Your task to perform on an android device: open app "Spotify: Music and Podcasts" (install if not already installed) and go to login screen Image 0: 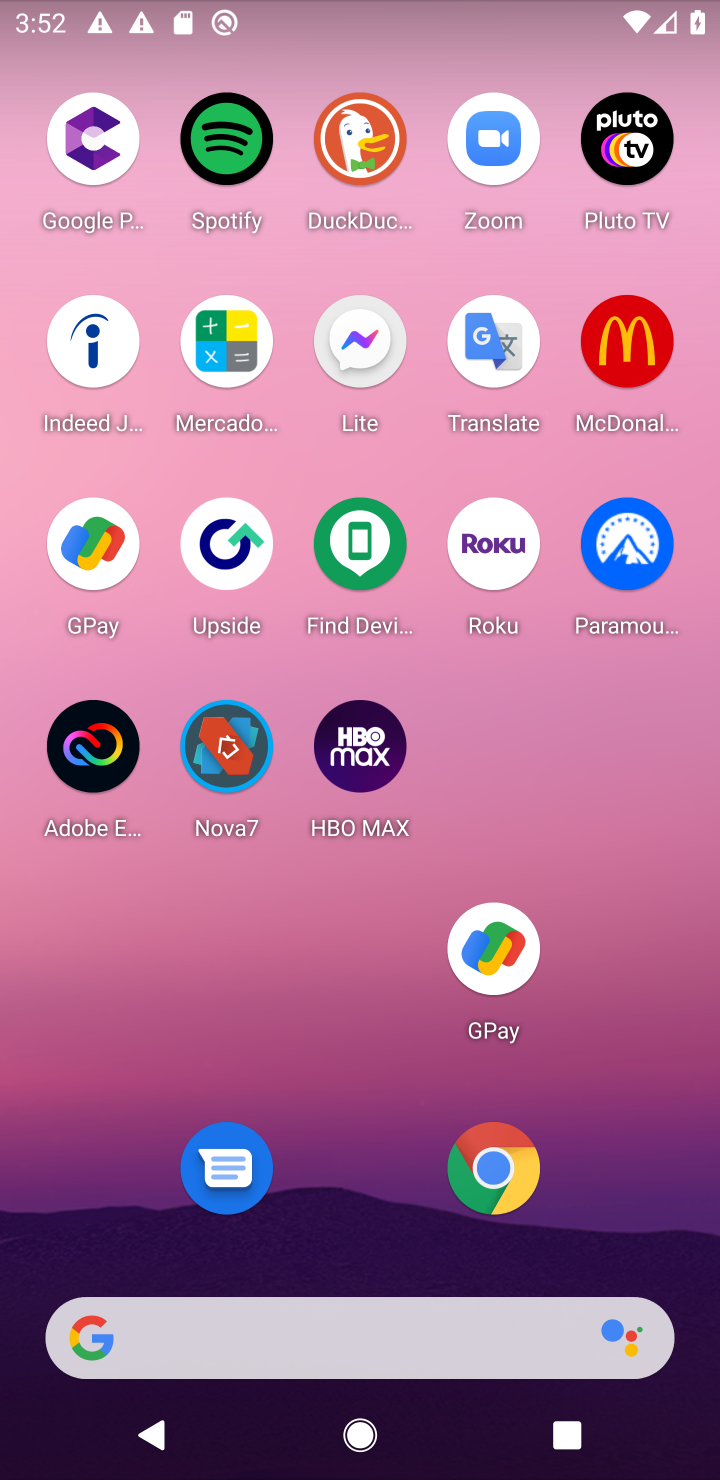
Step 0: press home button
Your task to perform on an android device: open app "Spotify: Music and Podcasts" (install if not already installed) and go to login screen Image 1: 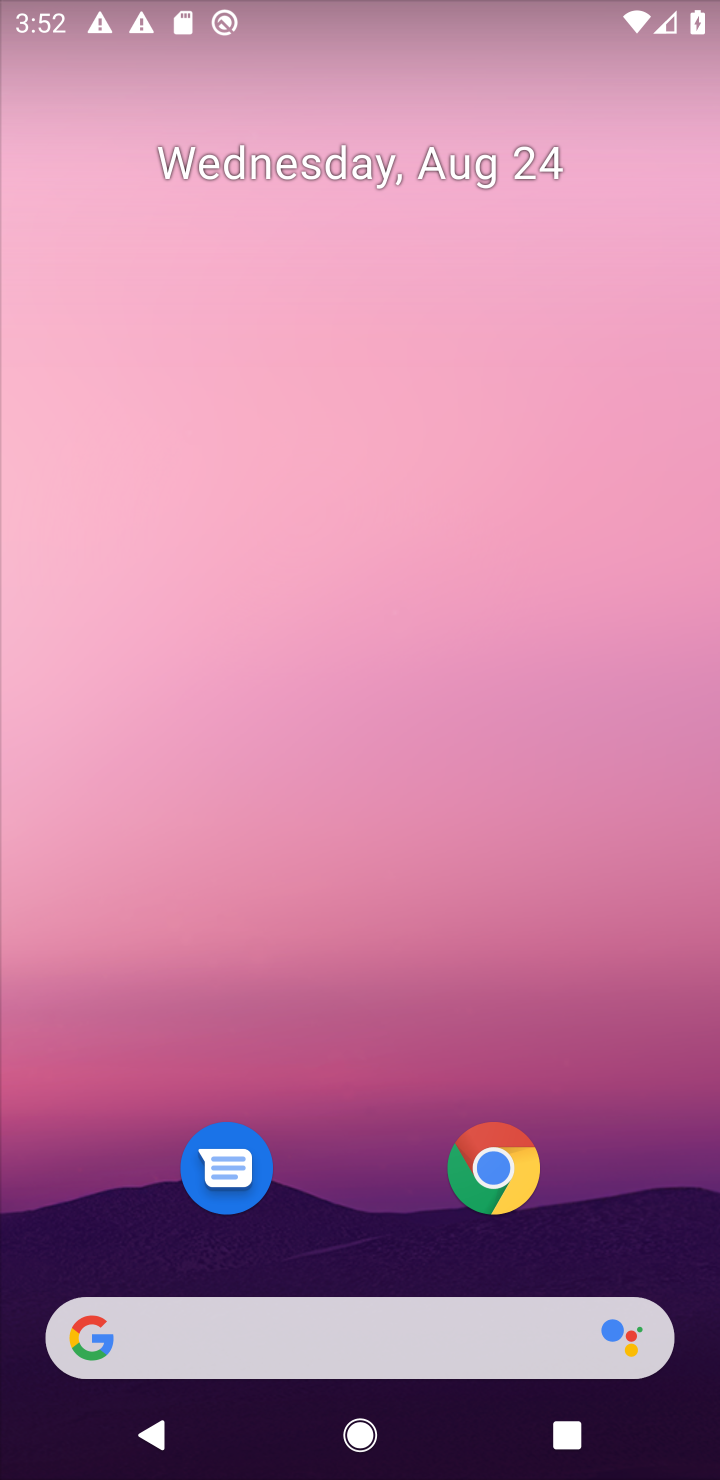
Step 1: drag from (691, 1277) to (567, 22)
Your task to perform on an android device: open app "Spotify: Music and Podcasts" (install if not already installed) and go to login screen Image 2: 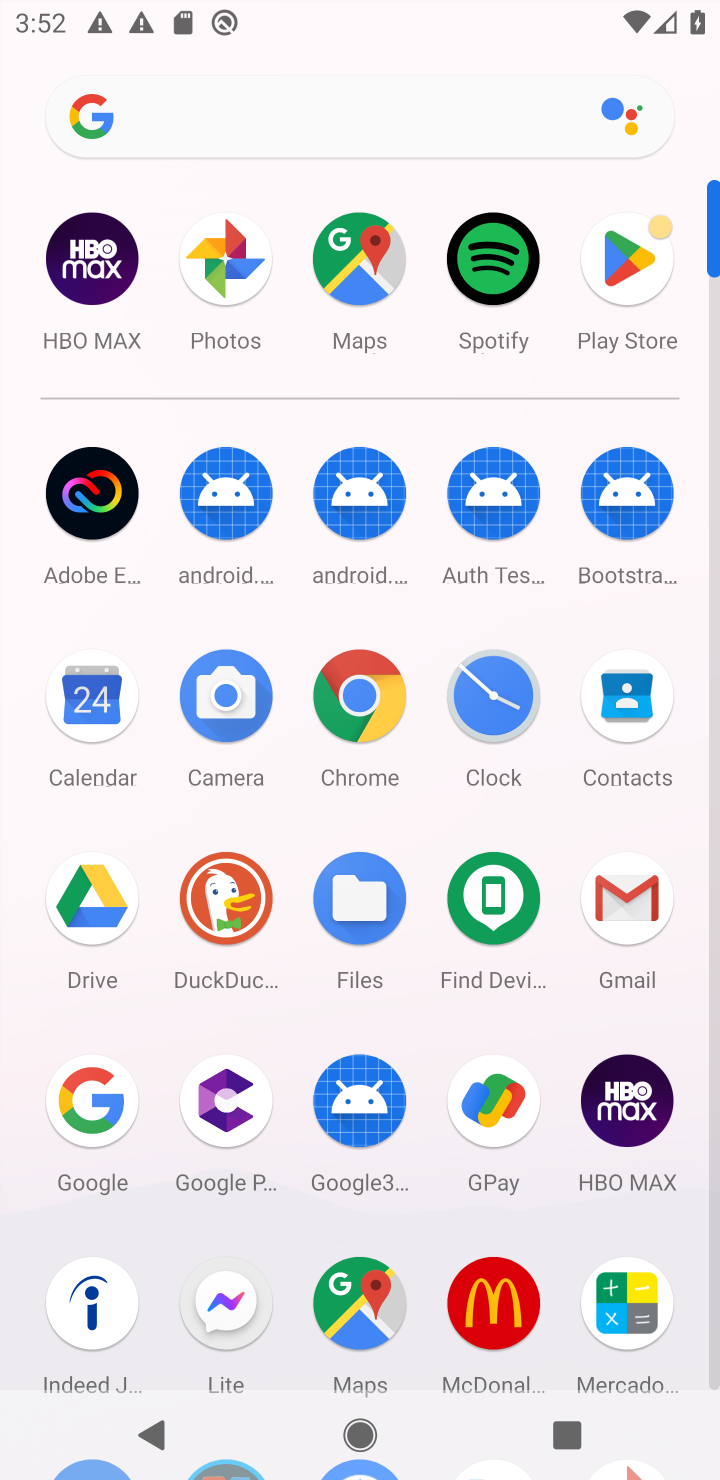
Step 2: click (712, 1315)
Your task to perform on an android device: open app "Spotify: Music and Podcasts" (install if not already installed) and go to login screen Image 3: 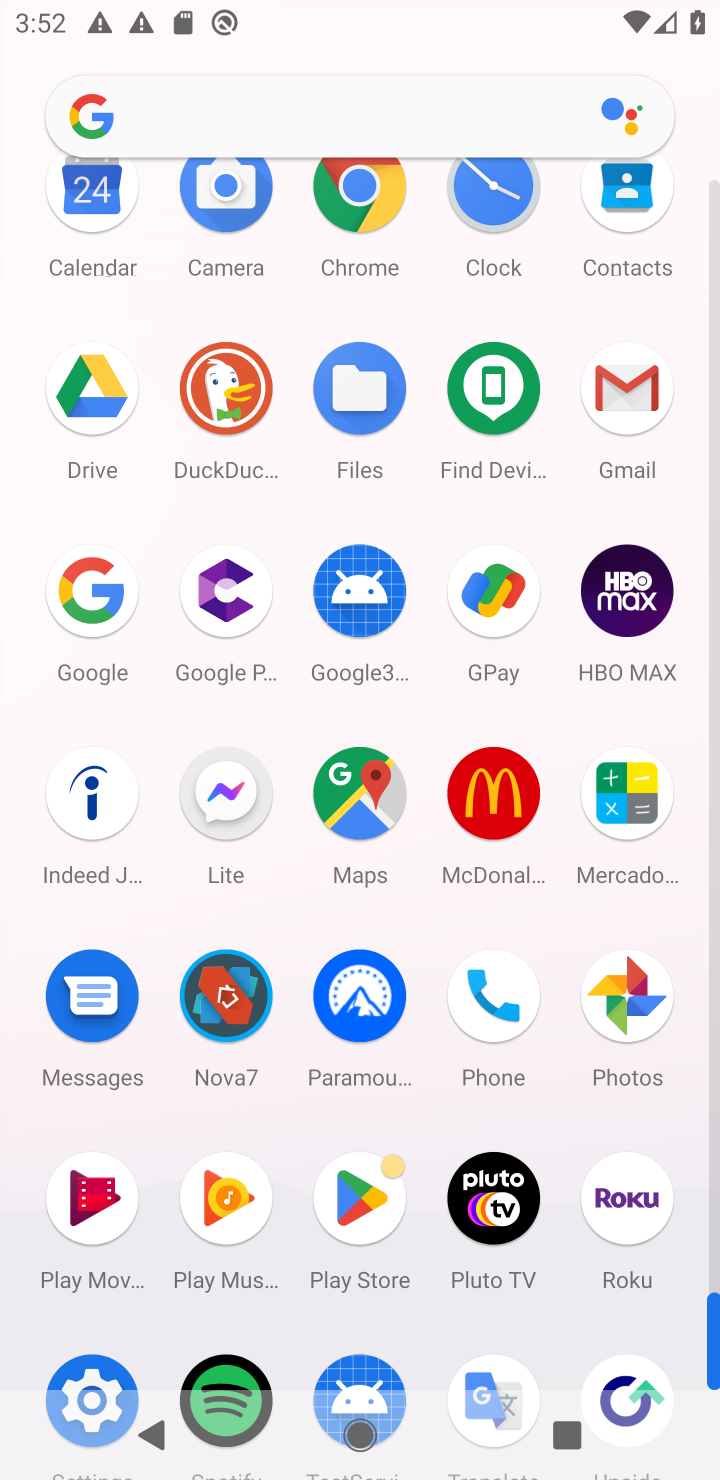
Step 3: click (371, 1198)
Your task to perform on an android device: open app "Spotify: Music and Podcasts" (install if not already installed) and go to login screen Image 4: 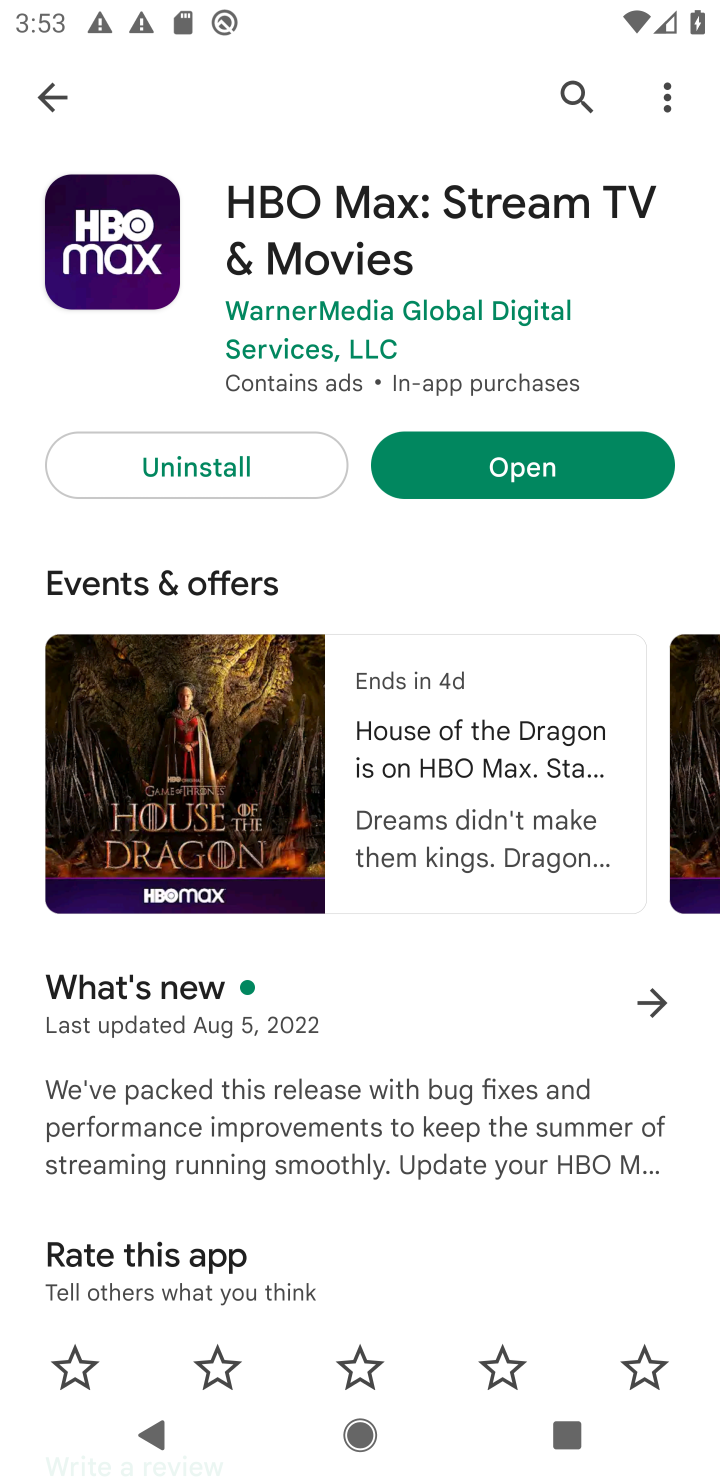
Step 4: click (570, 82)
Your task to perform on an android device: open app "Spotify: Music and Podcasts" (install if not already installed) and go to login screen Image 5: 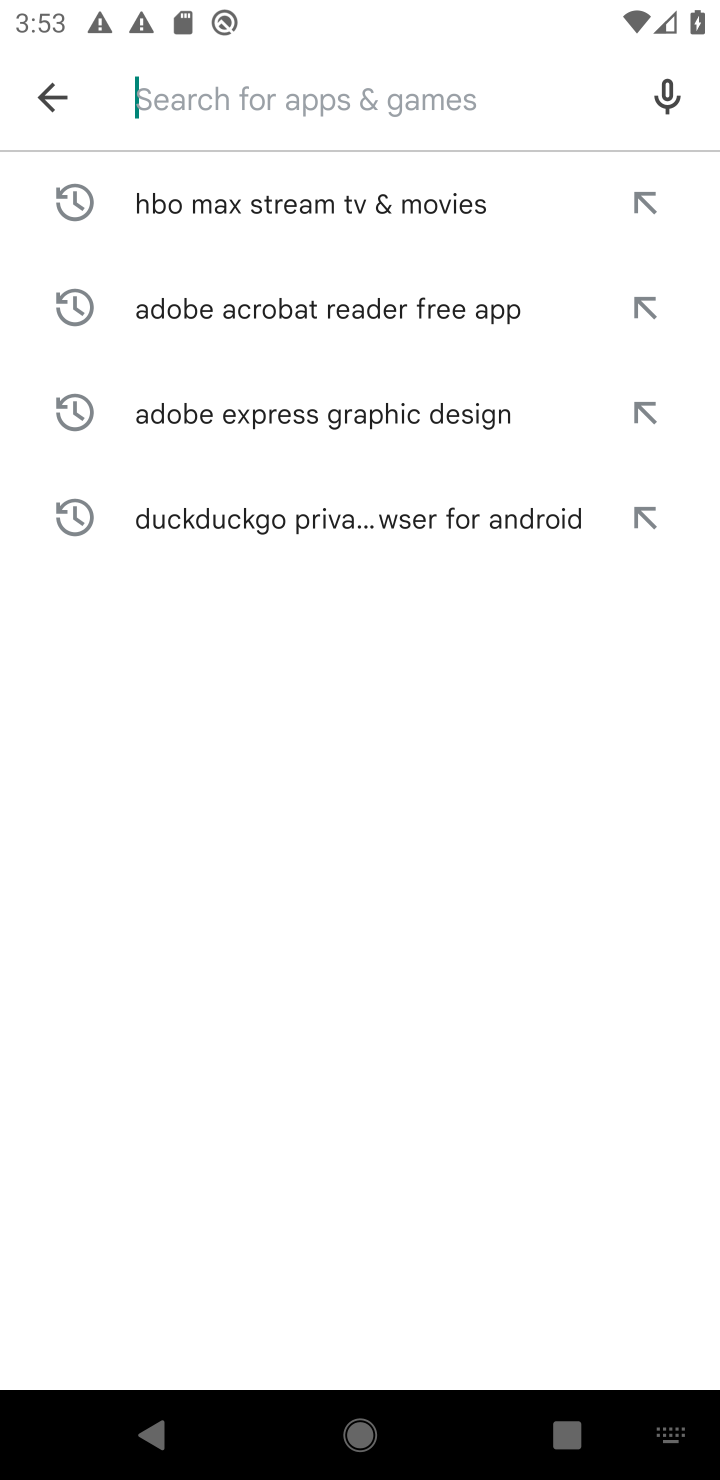
Step 5: type "Spotify: Music and Podcasts"
Your task to perform on an android device: open app "Spotify: Music and Podcasts" (install if not already installed) and go to login screen Image 6: 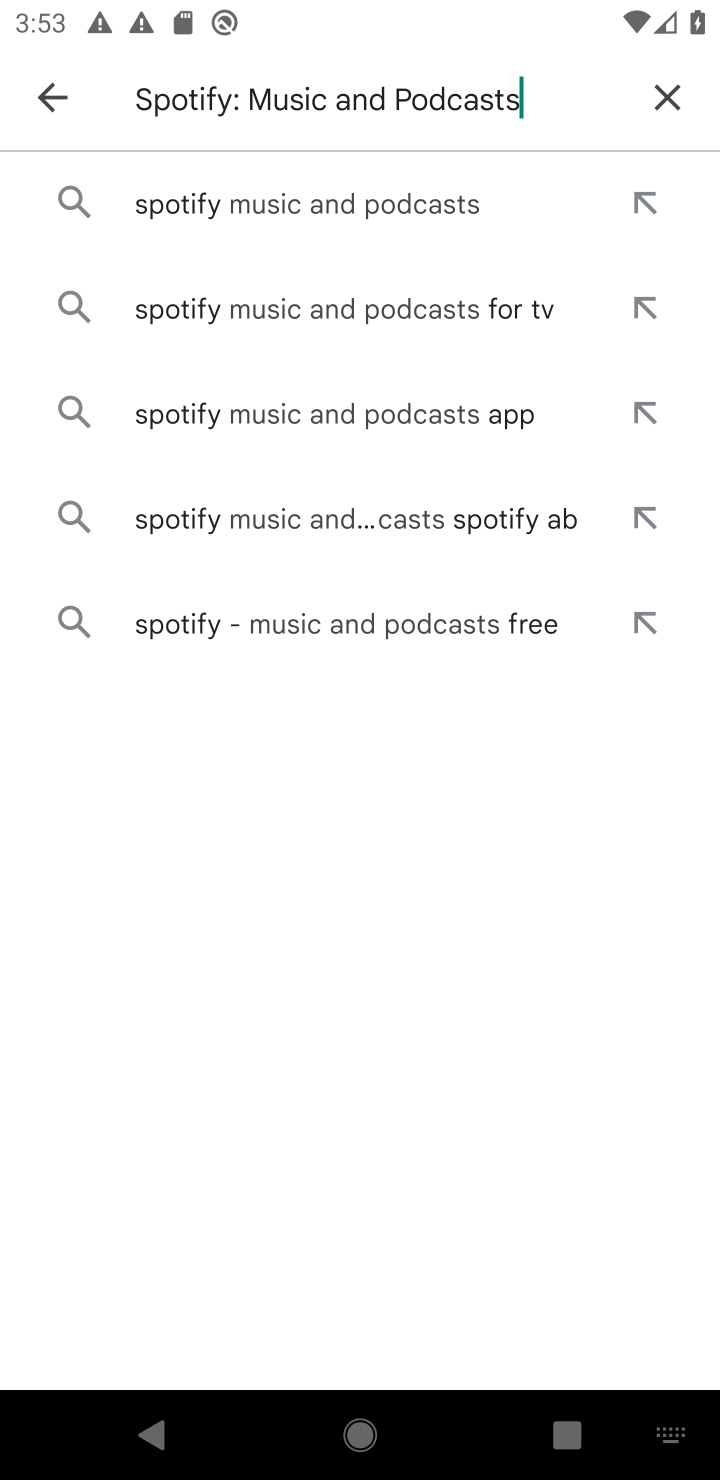
Step 6: click (253, 195)
Your task to perform on an android device: open app "Spotify: Music and Podcasts" (install if not already installed) and go to login screen Image 7: 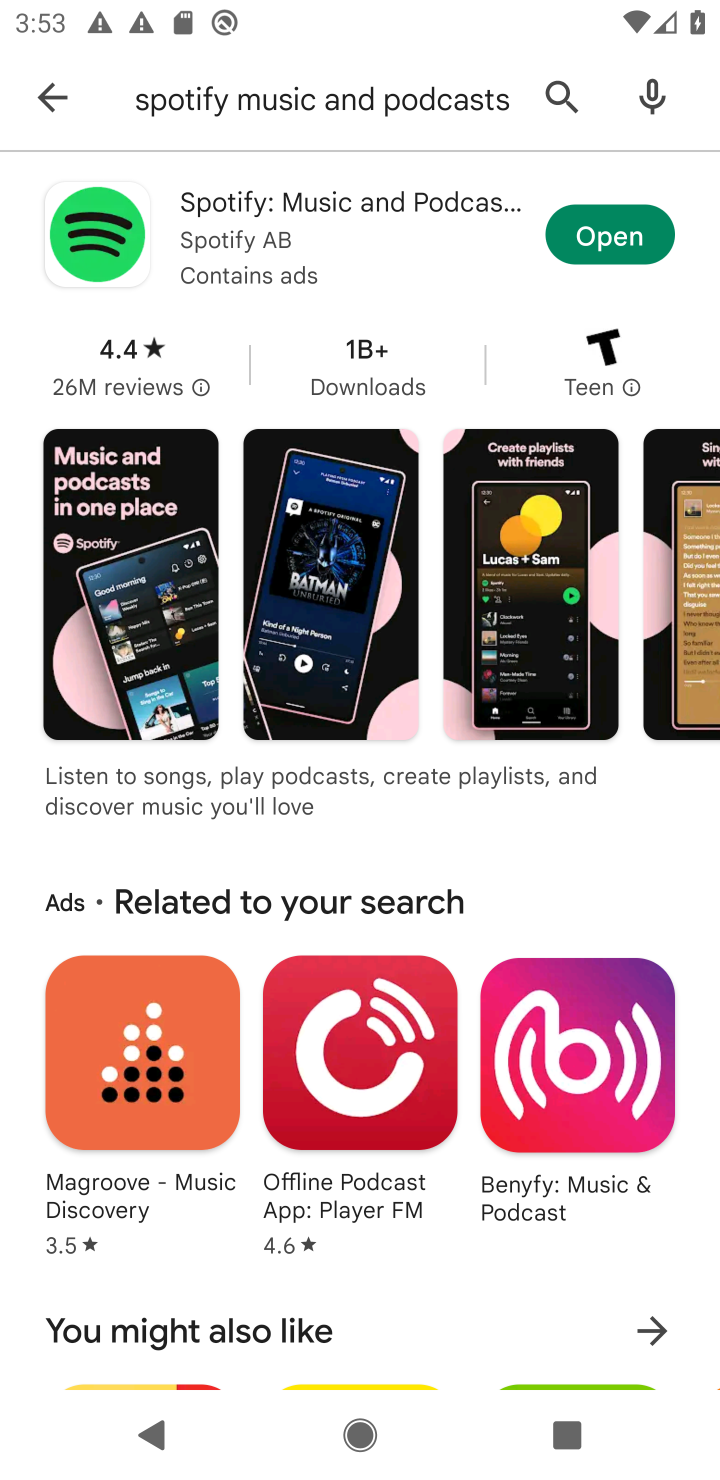
Step 7: click (258, 226)
Your task to perform on an android device: open app "Spotify: Music and Podcasts" (install if not already installed) and go to login screen Image 8: 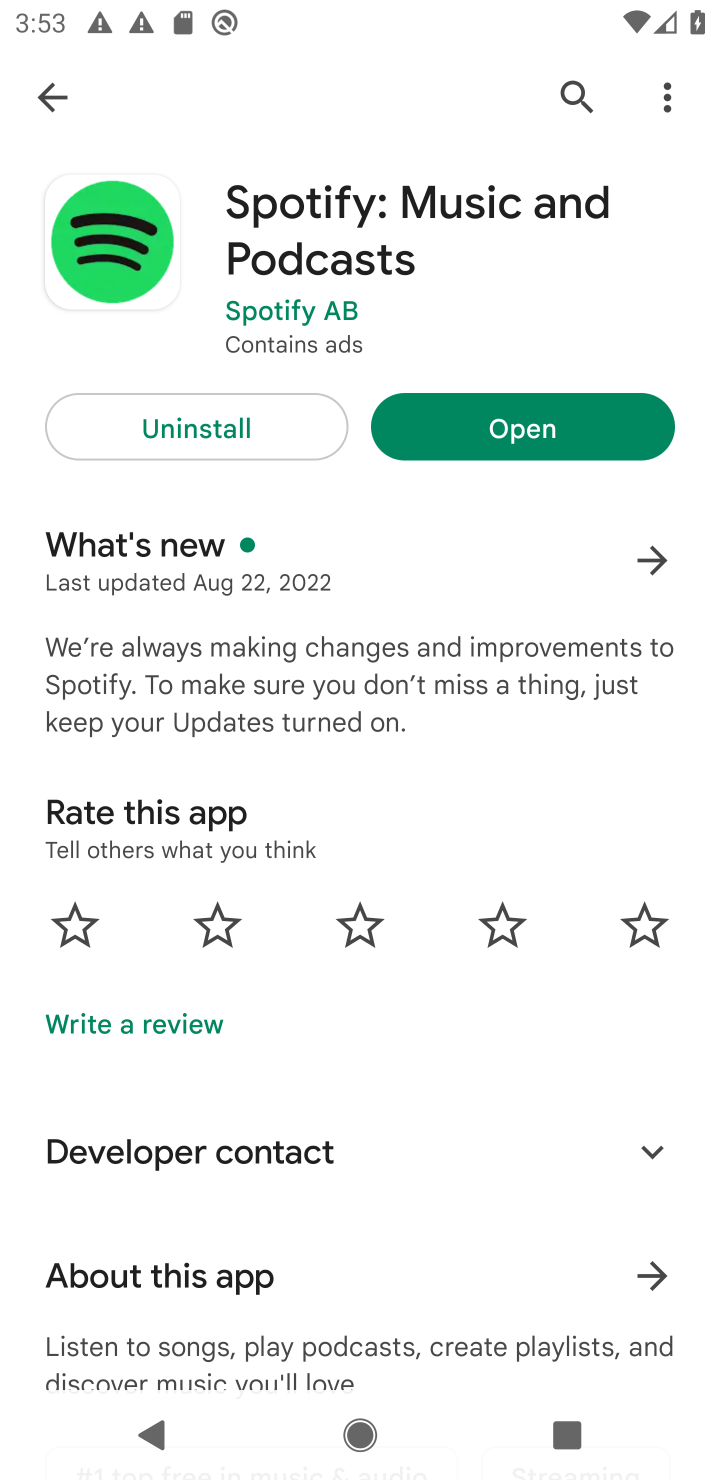
Step 8: click (532, 429)
Your task to perform on an android device: open app "Spotify: Music and Podcasts" (install if not already installed) and go to login screen Image 9: 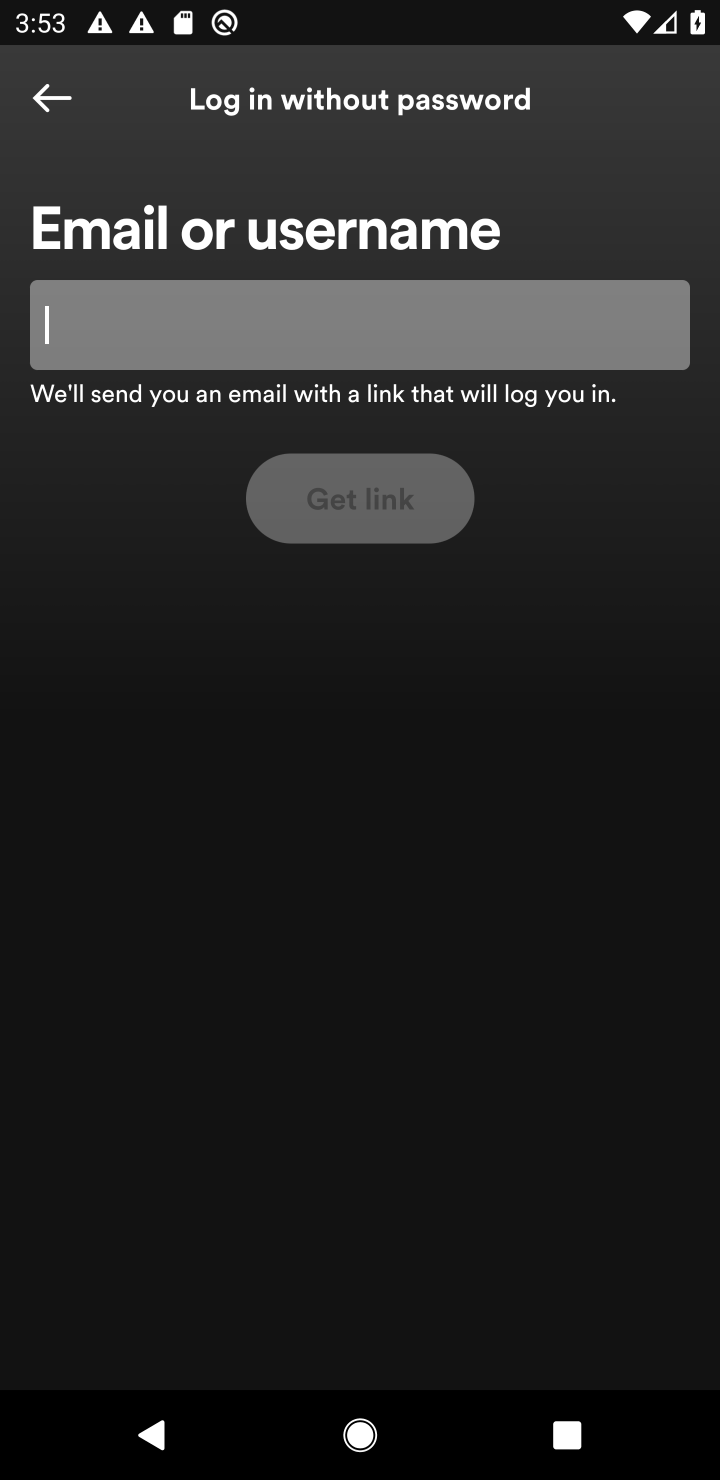
Step 9: task complete